Your task to perform on an android device: turn pop-ups off in chrome Image 0: 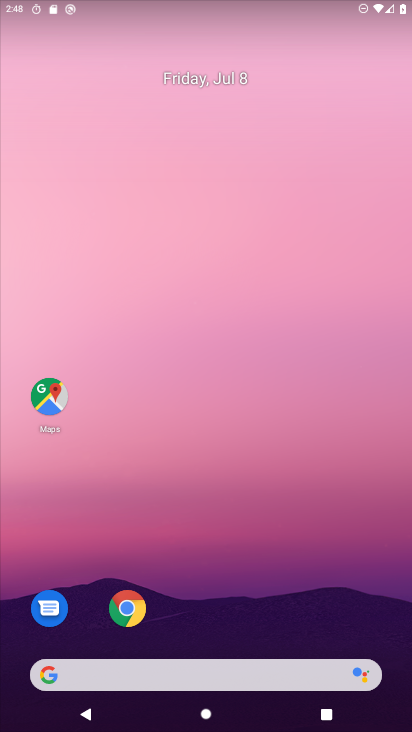
Step 0: click (128, 609)
Your task to perform on an android device: turn pop-ups off in chrome Image 1: 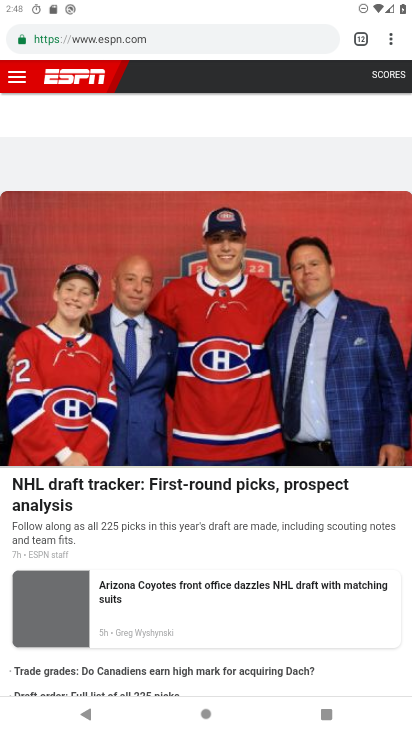
Step 1: click (391, 42)
Your task to perform on an android device: turn pop-ups off in chrome Image 2: 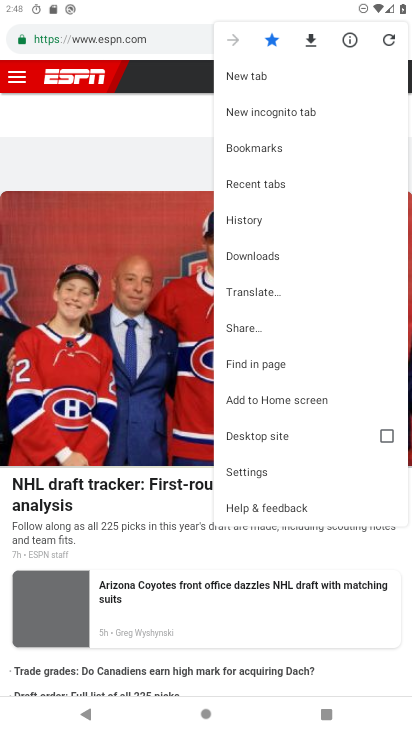
Step 2: click (255, 470)
Your task to perform on an android device: turn pop-ups off in chrome Image 3: 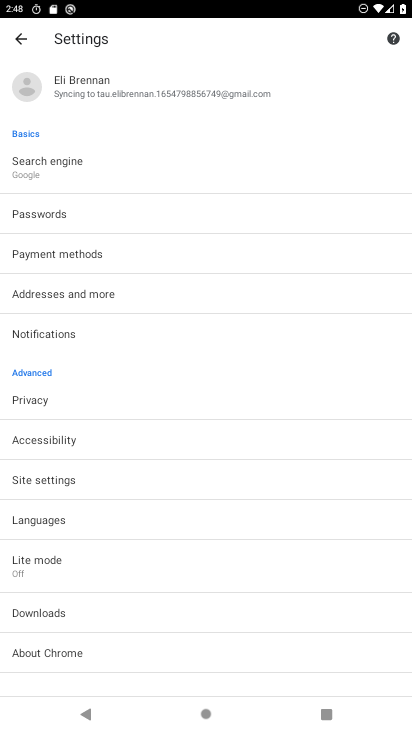
Step 3: click (37, 480)
Your task to perform on an android device: turn pop-ups off in chrome Image 4: 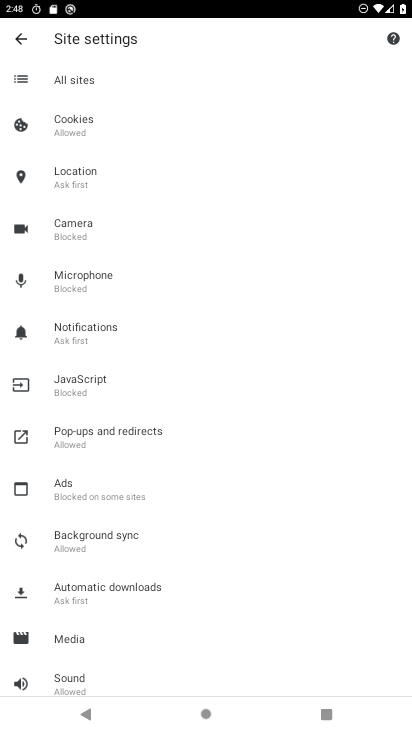
Step 4: click (93, 430)
Your task to perform on an android device: turn pop-ups off in chrome Image 5: 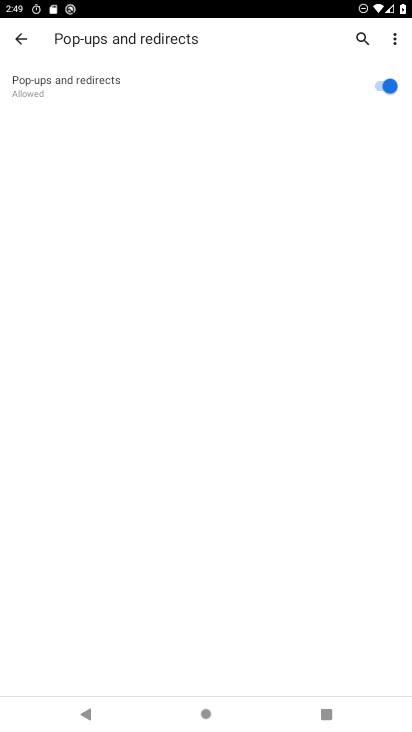
Step 5: click (379, 87)
Your task to perform on an android device: turn pop-ups off in chrome Image 6: 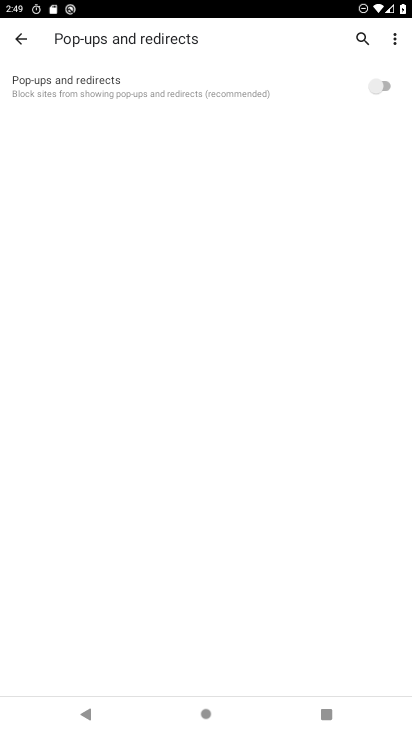
Step 6: task complete